Your task to perform on an android device: Open settings on Google Maps Image 0: 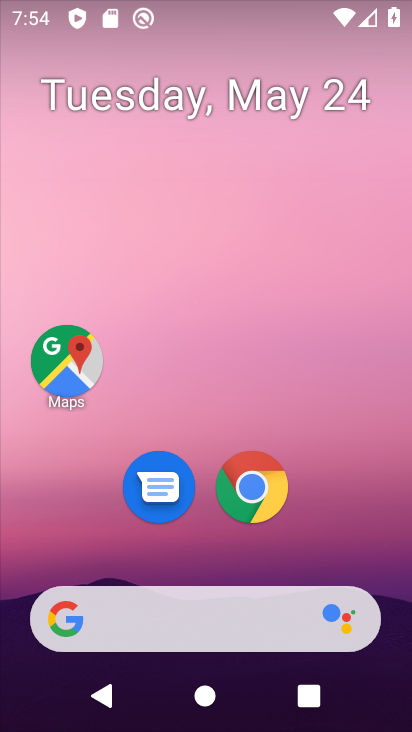
Step 0: drag from (31, 503) to (233, 133)
Your task to perform on an android device: Open settings on Google Maps Image 1: 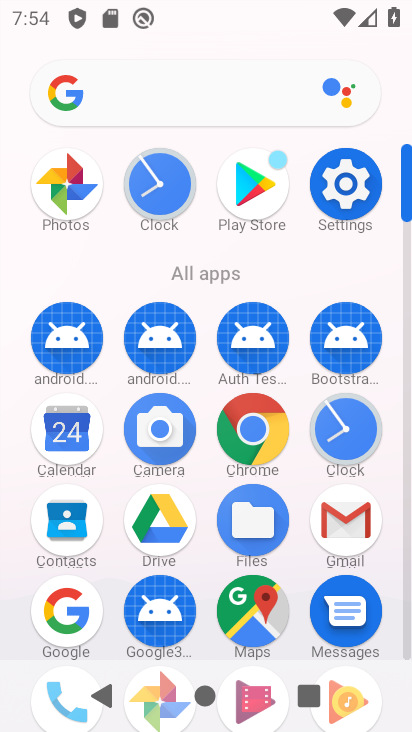
Step 1: click (271, 615)
Your task to perform on an android device: Open settings on Google Maps Image 2: 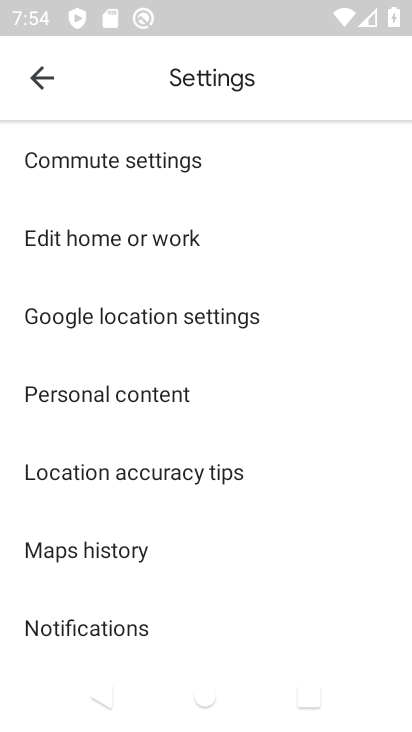
Step 2: task complete